Your task to perform on an android device: turn on translation in the chrome app Image 0: 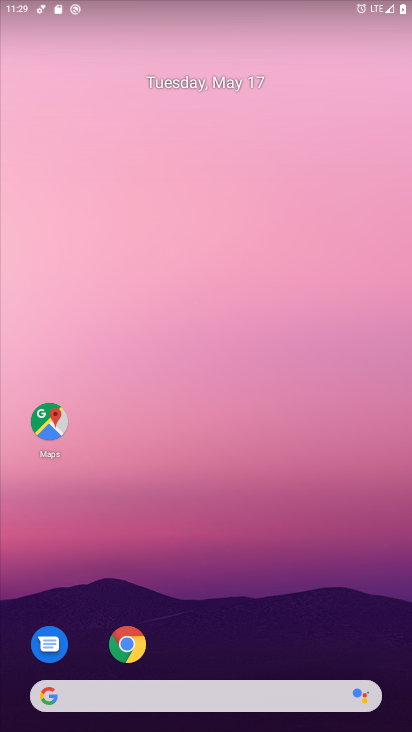
Step 0: click (128, 640)
Your task to perform on an android device: turn on translation in the chrome app Image 1: 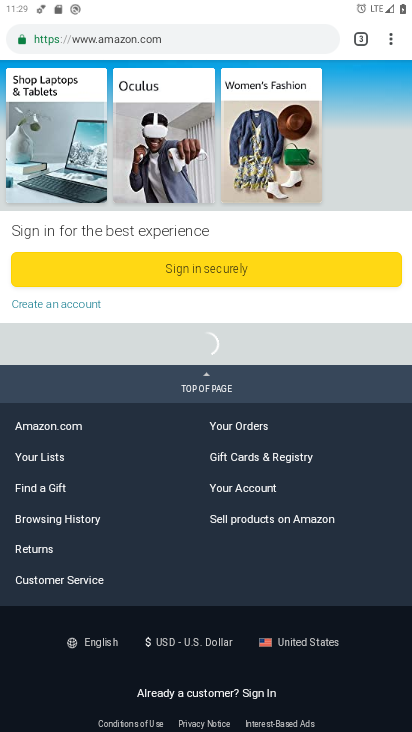
Step 1: click (390, 32)
Your task to perform on an android device: turn on translation in the chrome app Image 2: 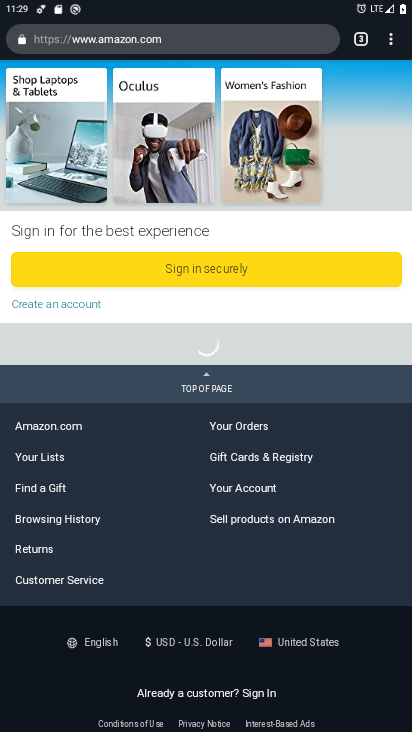
Step 2: click (393, 39)
Your task to perform on an android device: turn on translation in the chrome app Image 3: 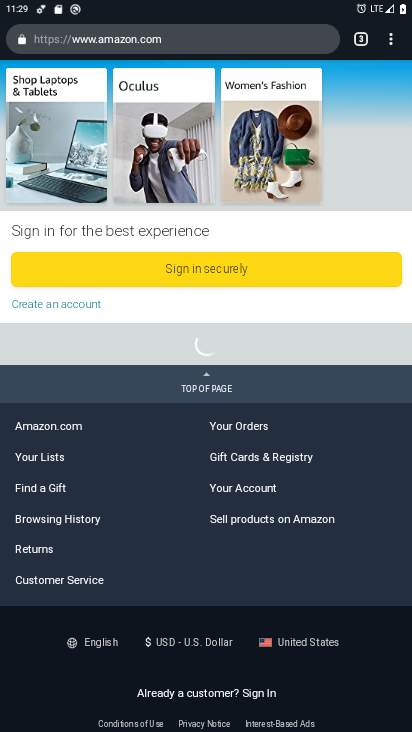
Step 3: click (389, 37)
Your task to perform on an android device: turn on translation in the chrome app Image 4: 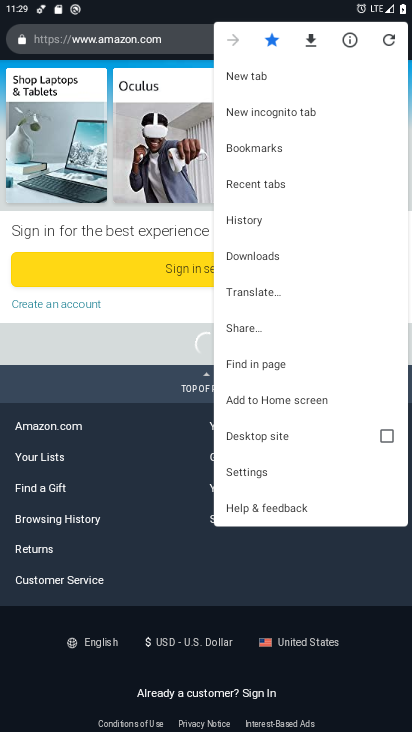
Step 4: click (282, 465)
Your task to perform on an android device: turn on translation in the chrome app Image 5: 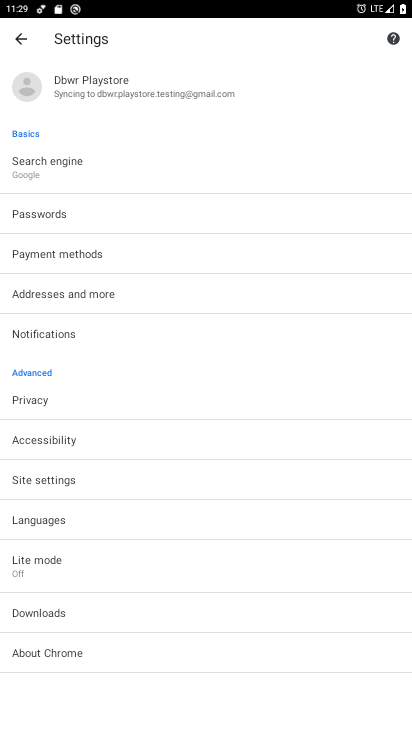
Step 5: click (77, 518)
Your task to perform on an android device: turn on translation in the chrome app Image 6: 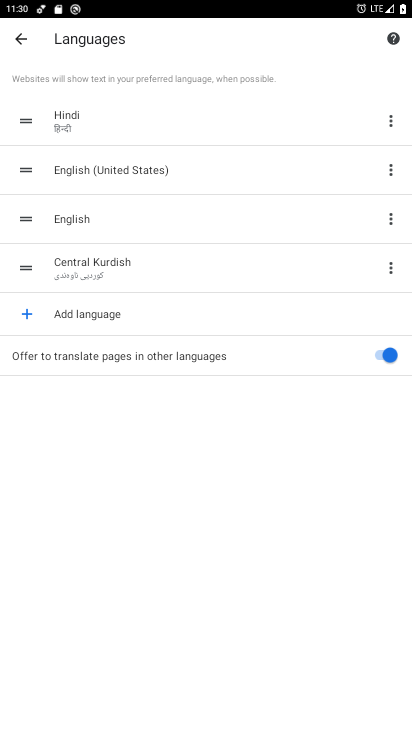
Step 6: task complete